Your task to perform on an android device: check android version Image 0: 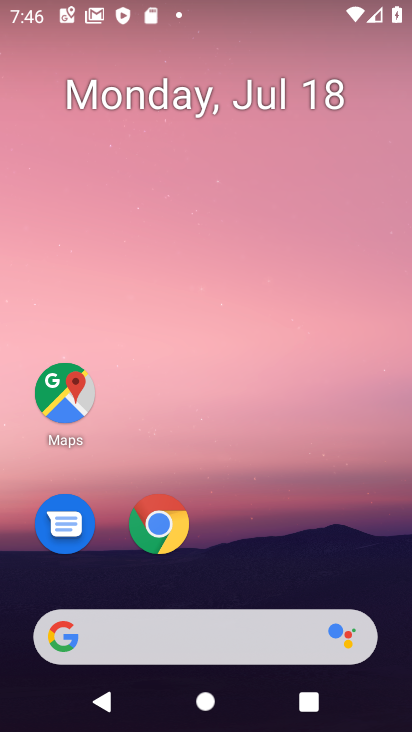
Step 0: drag from (304, 572) to (230, 24)
Your task to perform on an android device: check android version Image 1: 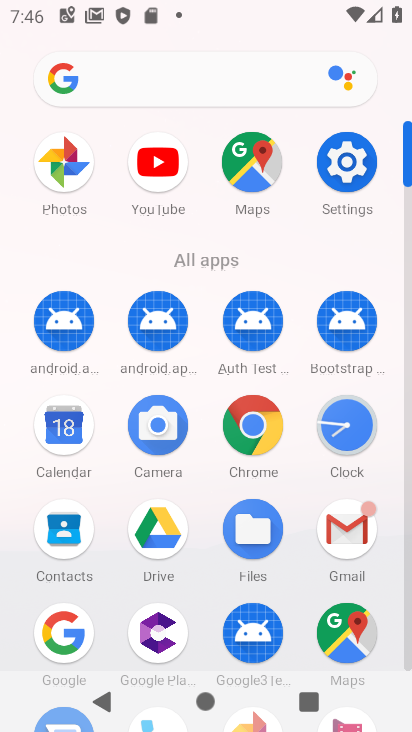
Step 1: click (334, 154)
Your task to perform on an android device: check android version Image 2: 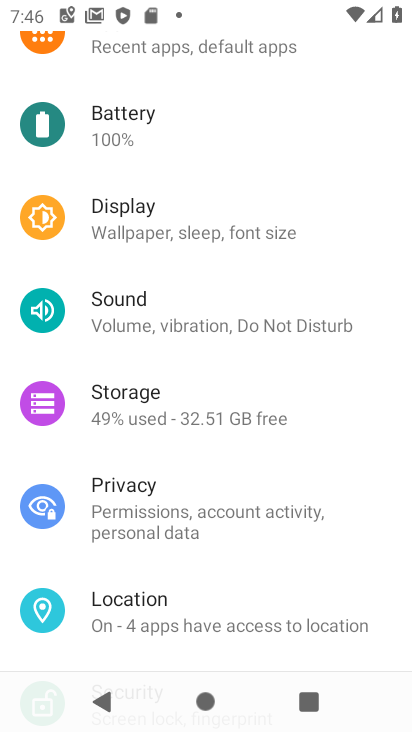
Step 2: drag from (265, 584) to (303, 1)
Your task to perform on an android device: check android version Image 3: 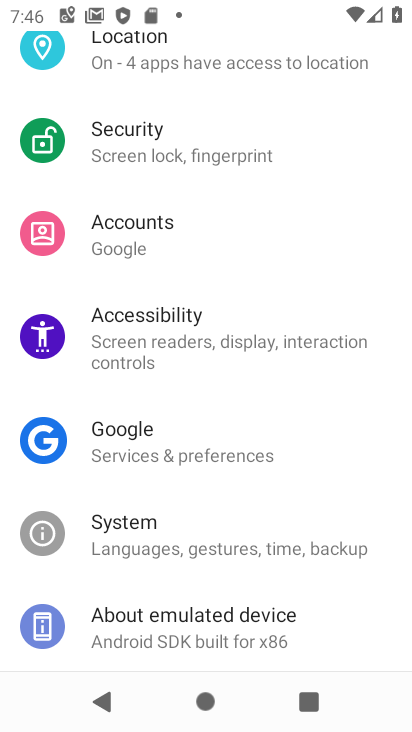
Step 3: click (231, 633)
Your task to perform on an android device: check android version Image 4: 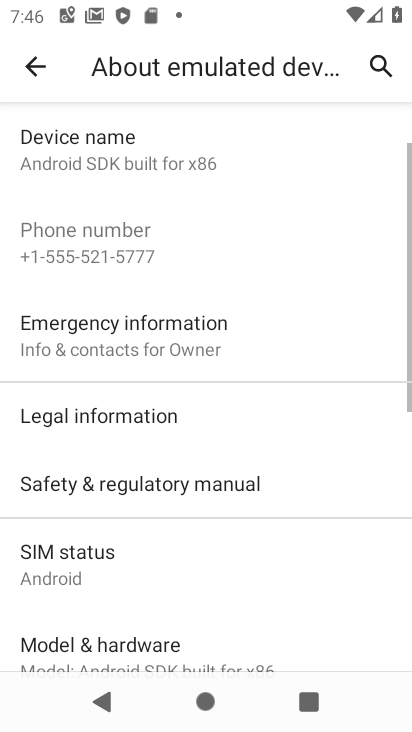
Step 4: drag from (242, 599) to (257, 323)
Your task to perform on an android device: check android version Image 5: 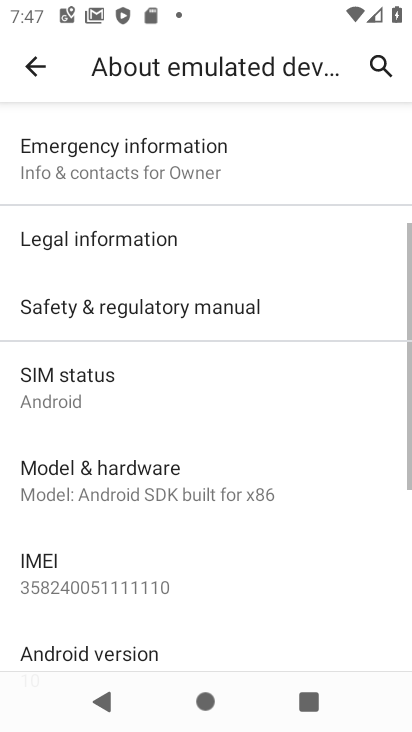
Step 5: drag from (252, 548) to (255, 262)
Your task to perform on an android device: check android version Image 6: 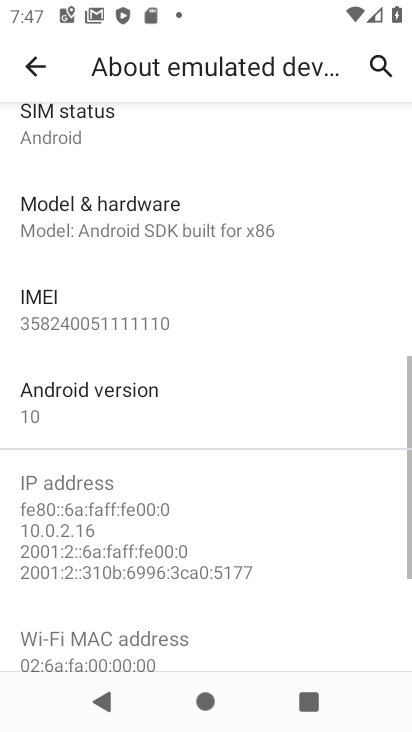
Step 6: click (150, 426)
Your task to perform on an android device: check android version Image 7: 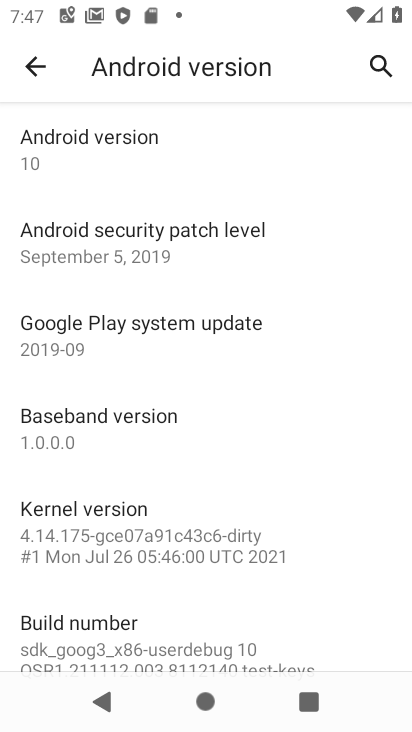
Step 7: task complete